Your task to perform on an android device: delete the emails in spam in the gmail app Image 0: 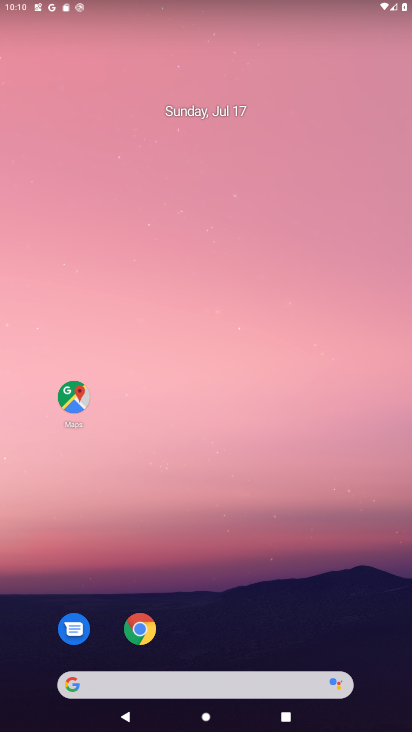
Step 0: drag from (214, 688) to (291, 220)
Your task to perform on an android device: delete the emails in spam in the gmail app Image 1: 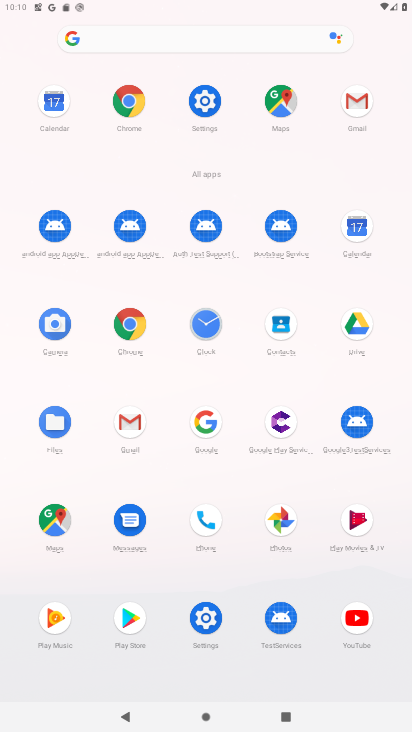
Step 1: click (130, 422)
Your task to perform on an android device: delete the emails in spam in the gmail app Image 2: 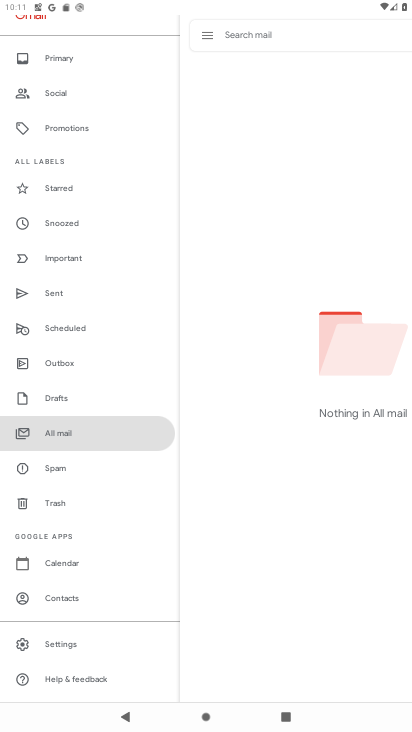
Step 2: click (59, 466)
Your task to perform on an android device: delete the emails in spam in the gmail app Image 3: 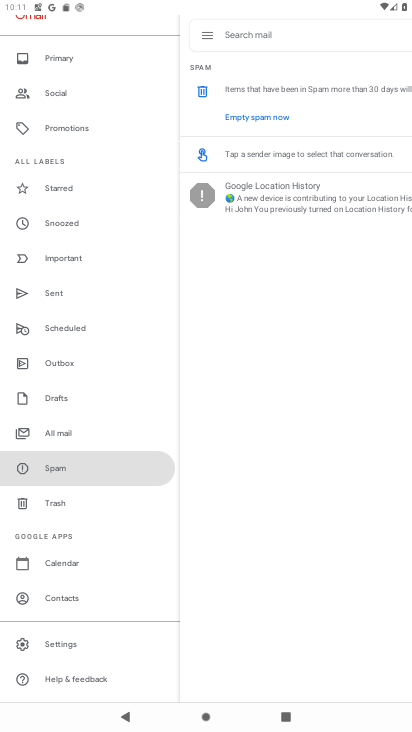
Step 3: click (276, 121)
Your task to perform on an android device: delete the emails in spam in the gmail app Image 4: 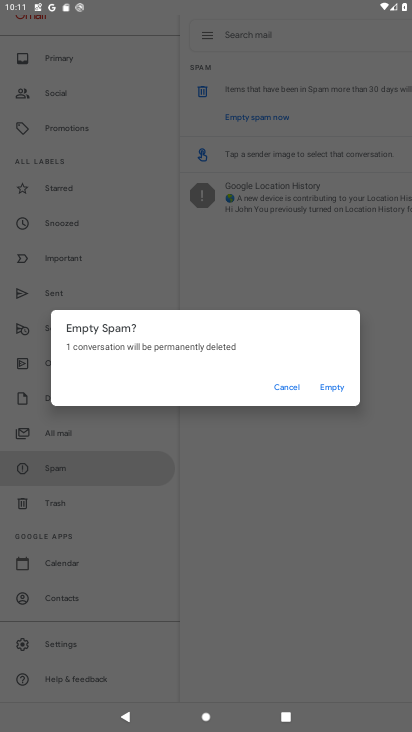
Step 4: click (339, 392)
Your task to perform on an android device: delete the emails in spam in the gmail app Image 5: 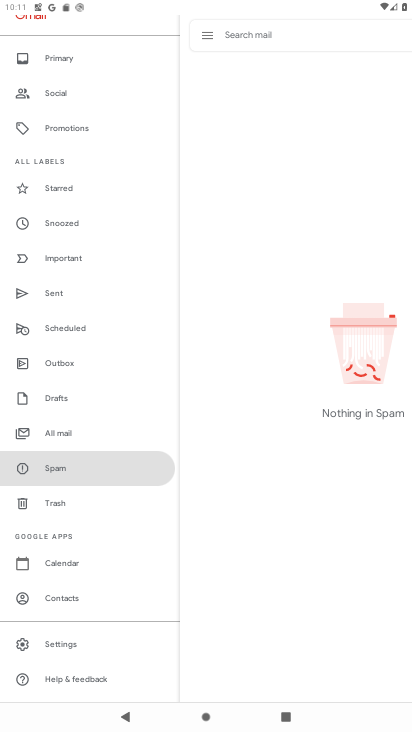
Step 5: task complete